Your task to perform on an android device: Go to display settings Image 0: 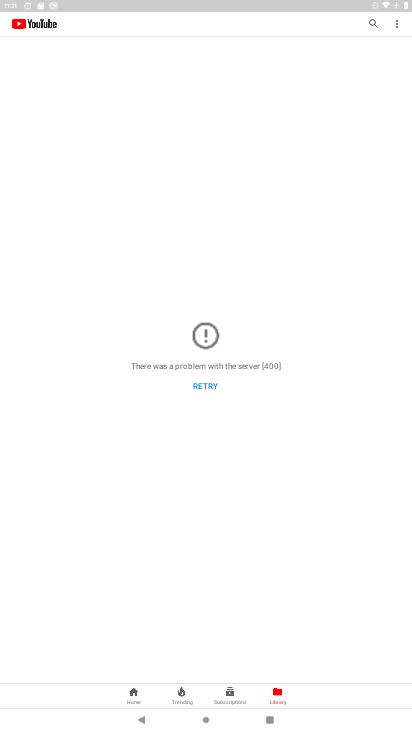
Step 0: press back button
Your task to perform on an android device: Go to display settings Image 1: 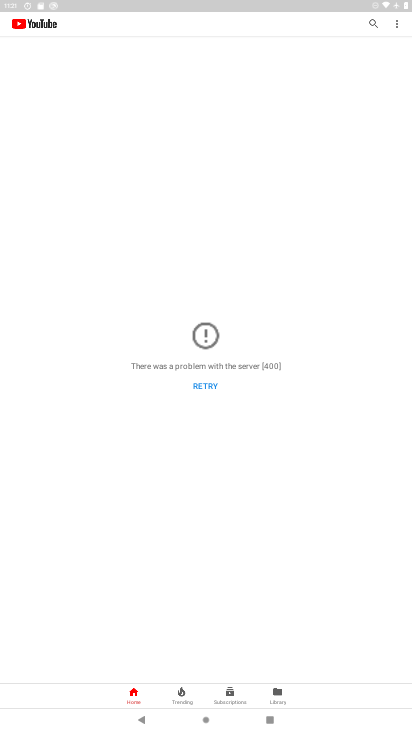
Step 1: press home button
Your task to perform on an android device: Go to display settings Image 2: 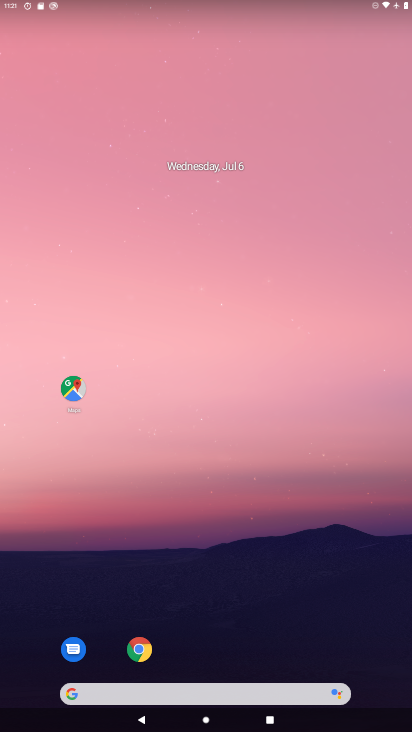
Step 2: drag from (397, 715) to (330, 135)
Your task to perform on an android device: Go to display settings Image 3: 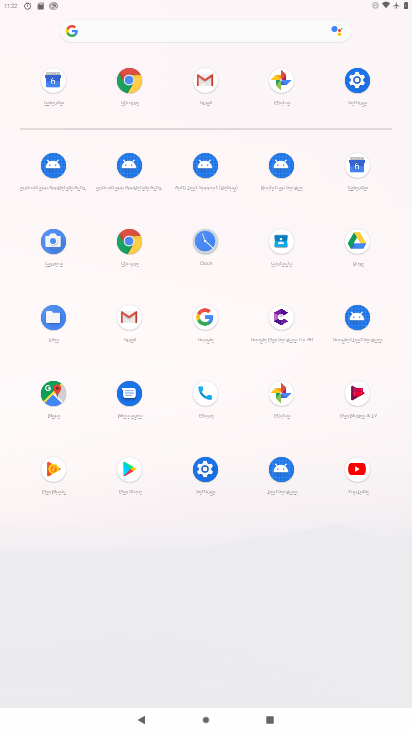
Step 3: click (354, 74)
Your task to perform on an android device: Go to display settings Image 4: 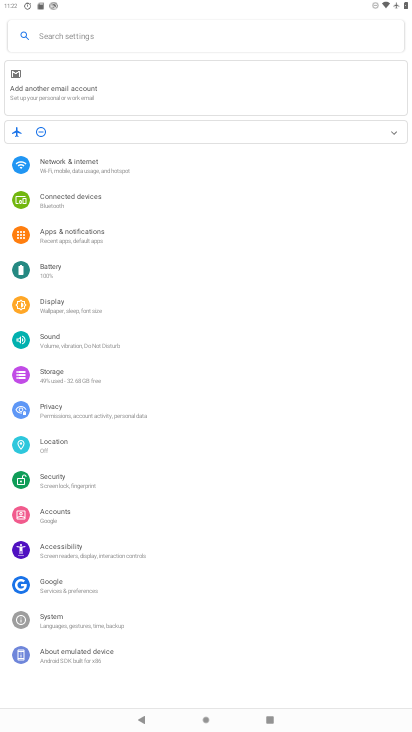
Step 4: click (45, 299)
Your task to perform on an android device: Go to display settings Image 5: 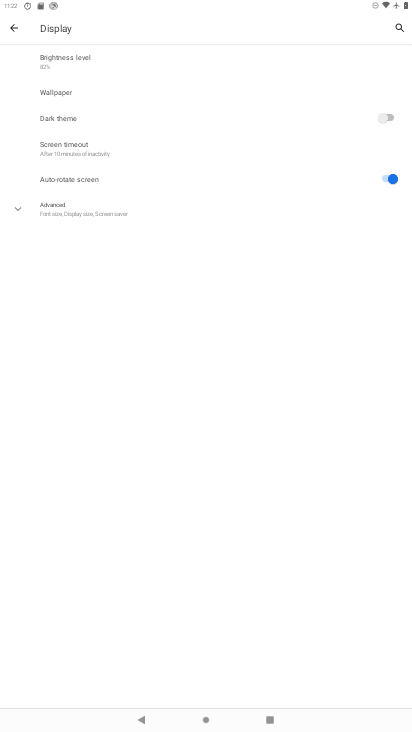
Step 5: task complete